Your task to perform on an android device: change notification settings in the gmail app Image 0: 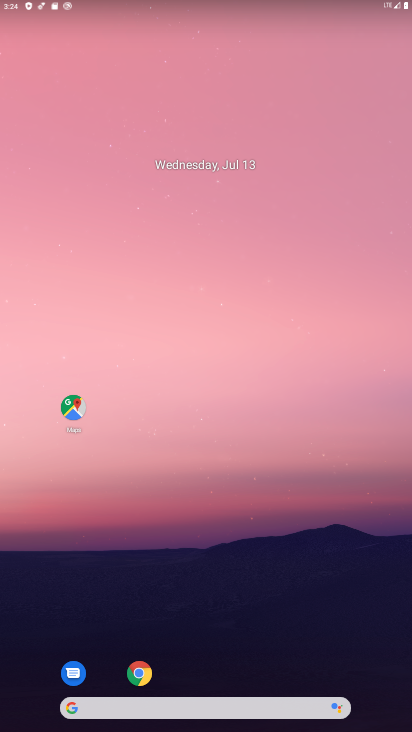
Step 0: drag from (231, 715) to (243, 217)
Your task to perform on an android device: change notification settings in the gmail app Image 1: 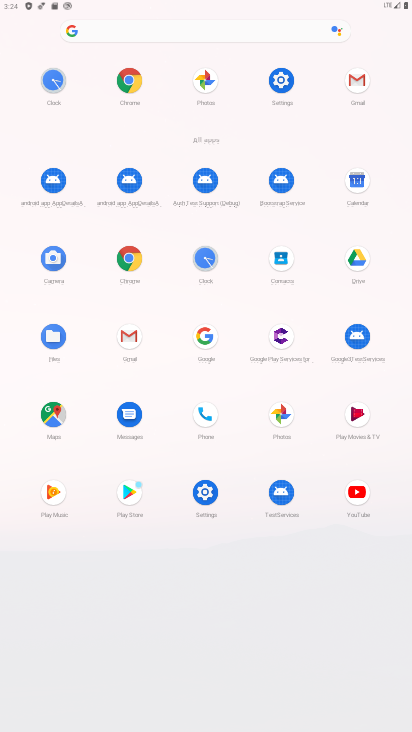
Step 1: click (127, 336)
Your task to perform on an android device: change notification settings in the gmail app Image 2: 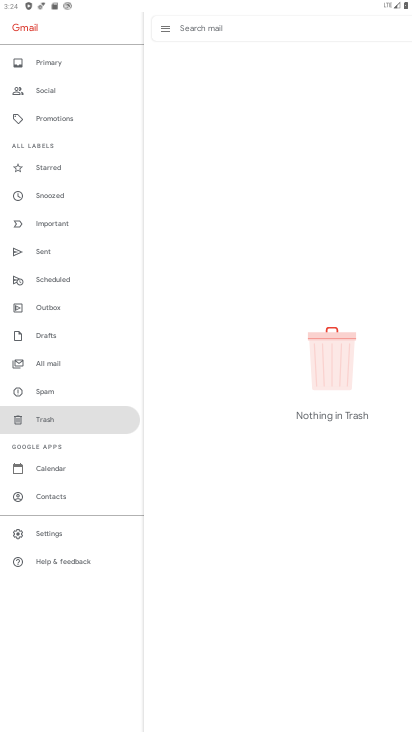
Step 2: click (49, 535)
Your task to perform on an android device: change notification settings in the gmail app Image 3: 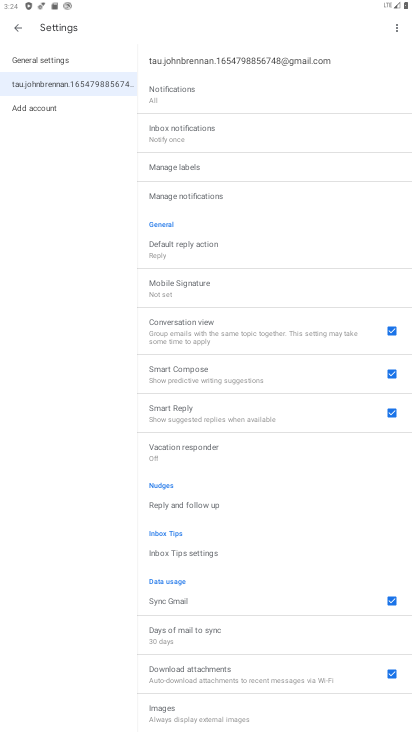
Step 3: click (173, 88)
Your task to perform on an android device: change notification settings in the gmail app Image 4: 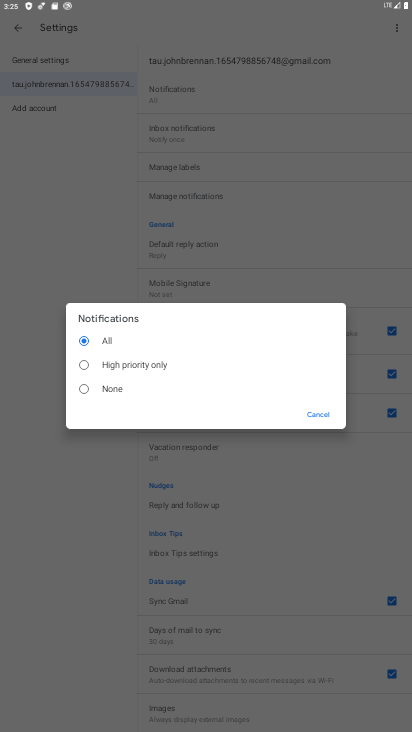
Step 4: click (80, 390)
Your task to perform on an android device: change notification settings in the gmail app Image 5: 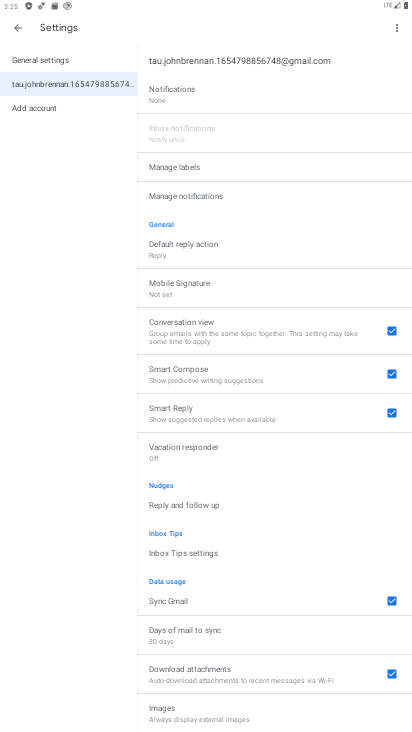
Step 5: task complete